Your task to perform on an android device: Go to Amazon Image 0: 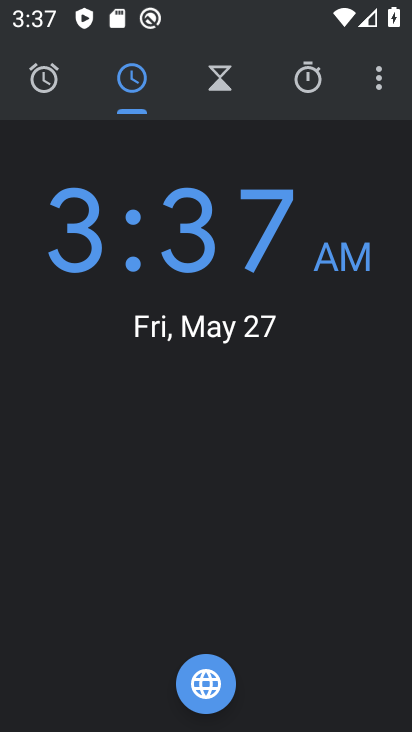
Step 0: press home button
Your task to perform on an android device: Go to Amazon Image 1: 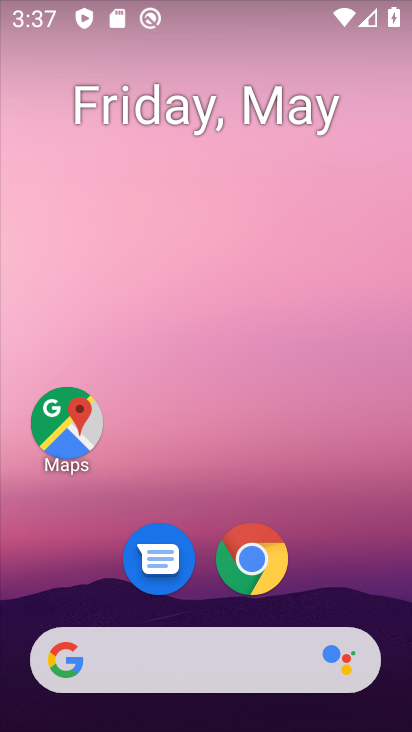
Step 1: click (231, 553)
Your task to perform on an android device: Go to Amazon Image 2: 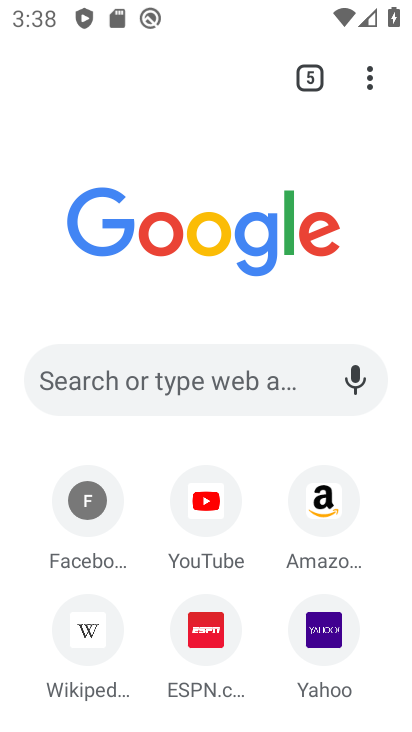
Step 2: click (304, 78)
Your task to perform on an android device: Go to Amazon Image 3: 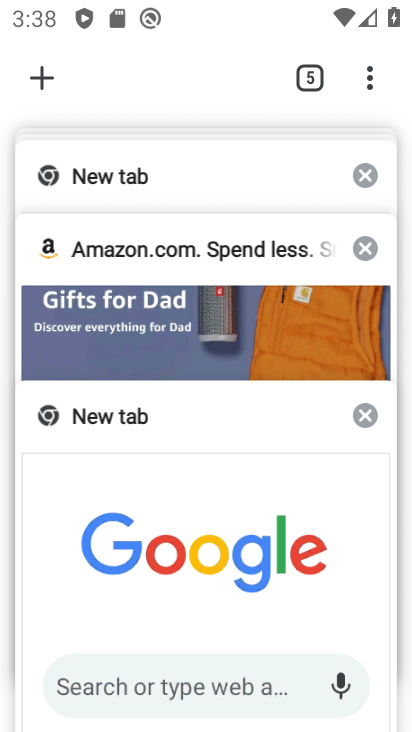
Step 3: click (191, 315)
Your task to perform on an android device: Go to Amazon Image 4: 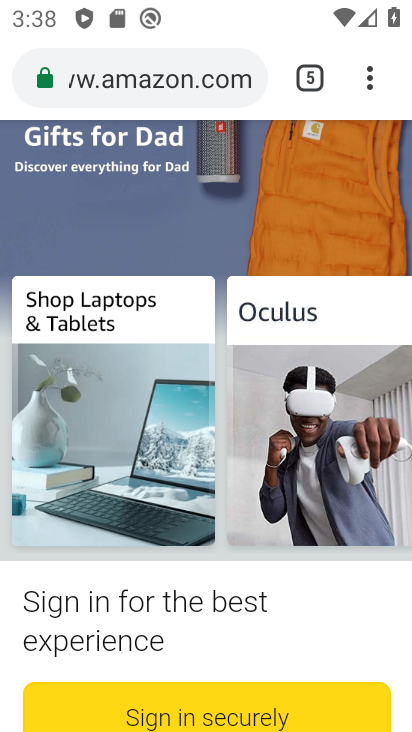
Step 4: task complete